Your task to perform on an android device: check google app version Image 0: 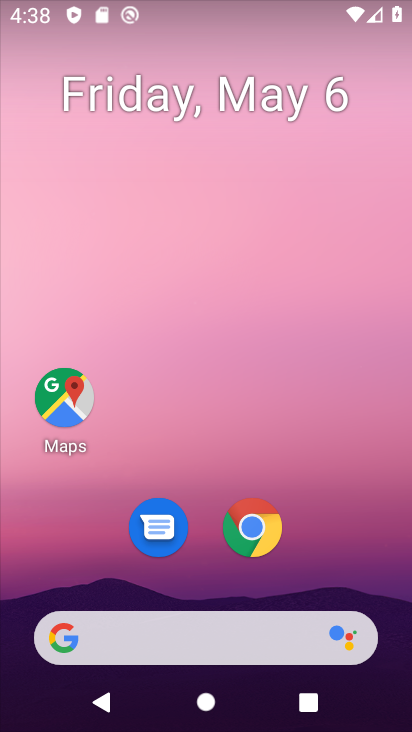
Step 0: drag from (181, 588) to (98, 5)
Your task to perform on an android device: check google app version Image 1: 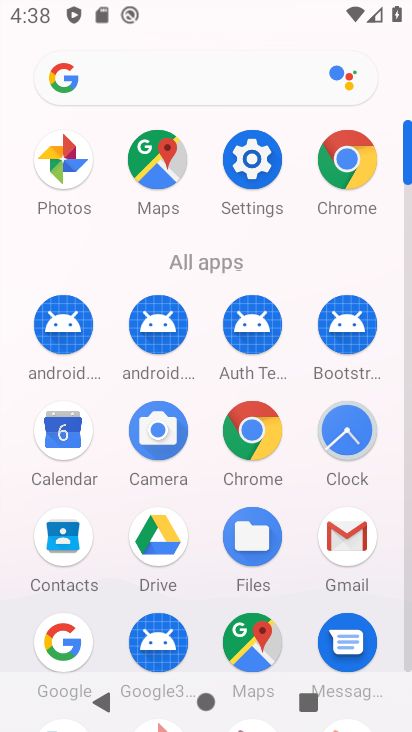
Step 1: click (254, 157)
Your task to perform on an android device: check google app version Image 2: 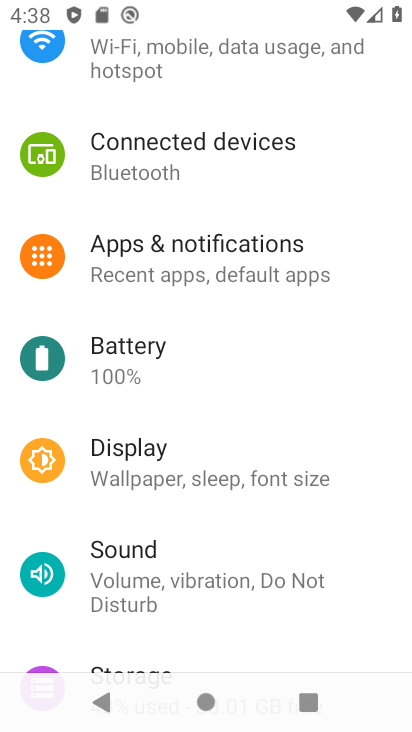
Step 2: drag from (292, 508) to (218, 6)
Your task to perform on an android device: check google app version Image 3: 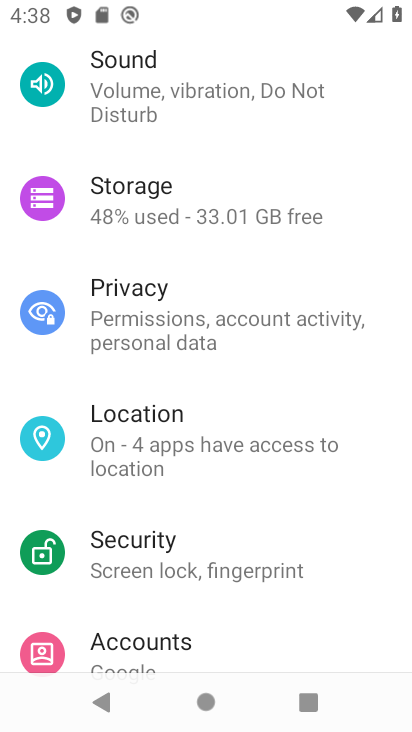
Step 3: drag from (214, 620) to (134, 96)
Your task to perform on an android device: check google app version Image 4: 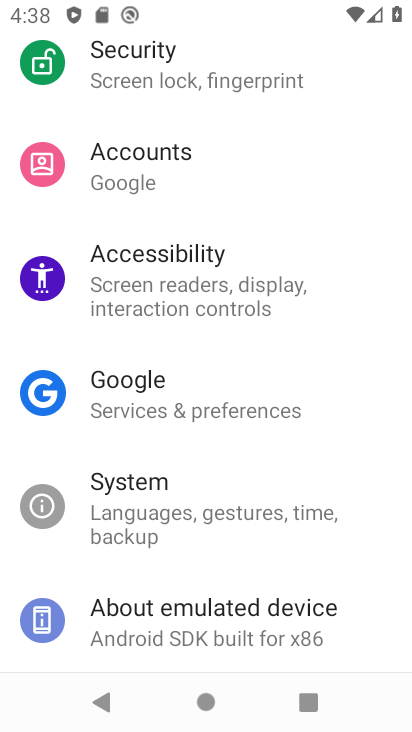
Step 4: click (147, 619)
Your task to perform on an android device: check google app version Image 5: 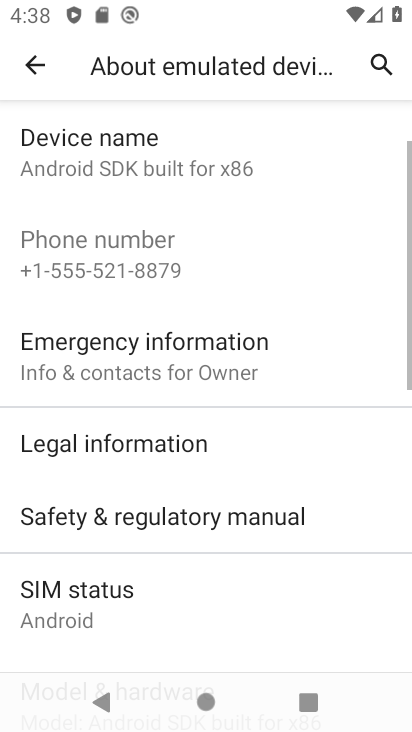
Step 5: drag from (182, 460) to (121, 35)
Your task to perform on an android device: check google app version Image 6: 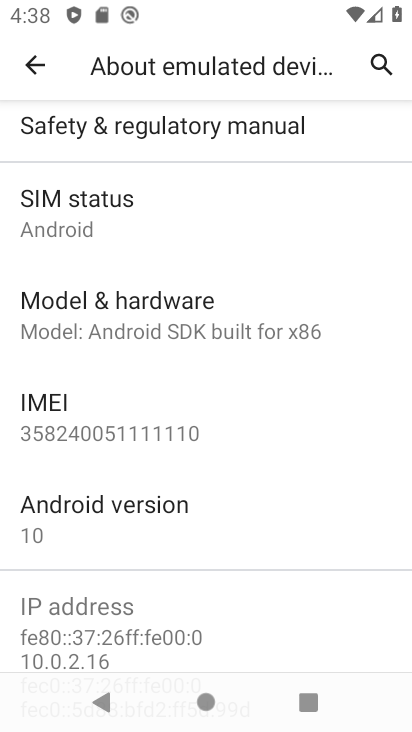
Step 6: click (159, 525)
Your task to perform on an android device: check google app version Image 7: 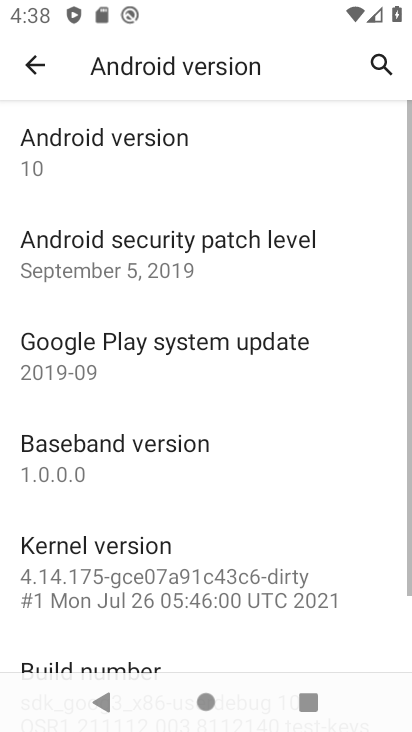
Step 7: task complete